Your task to perform on an android device: check google app version Image 0: 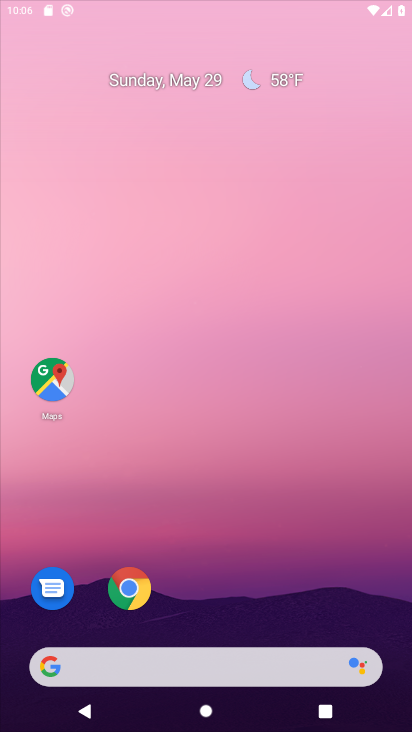
Step 0: click (207, 84)
Your task to perform on an android device: check google app version Image 1: 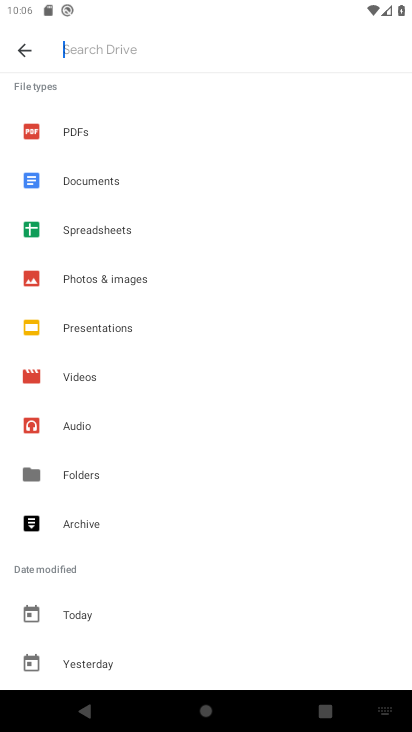
Step 1: click (22, 57)
Your task to perform on an android device: check google app version Image 2: 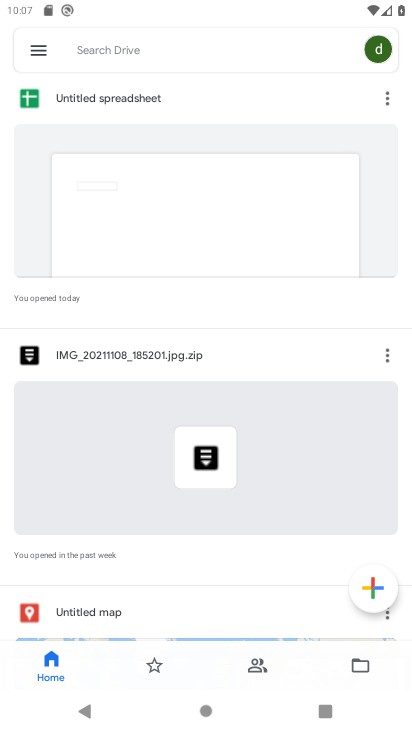
Step 2: press back button
Your task to perform on an android device: check google app version Image 3: 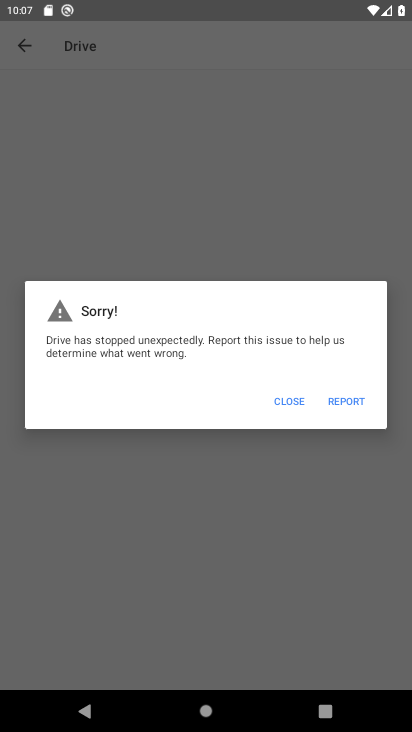
Step 3: click (286, 396)
Your task to perform on an android device: check google app version Image 4: 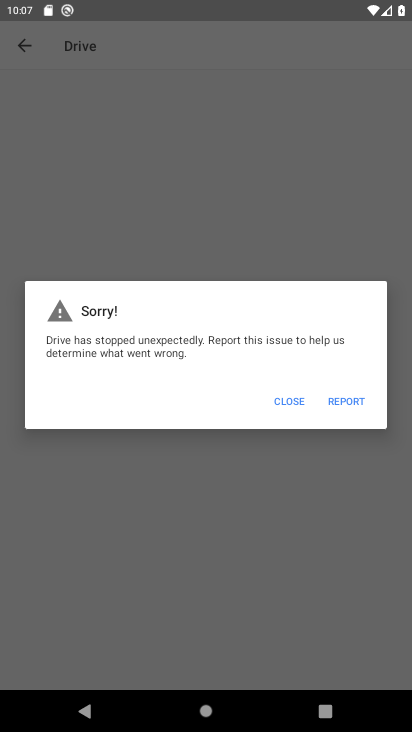
Step 4: click (290, 393)
Your task to perform on an android device: check google app version Image 5: 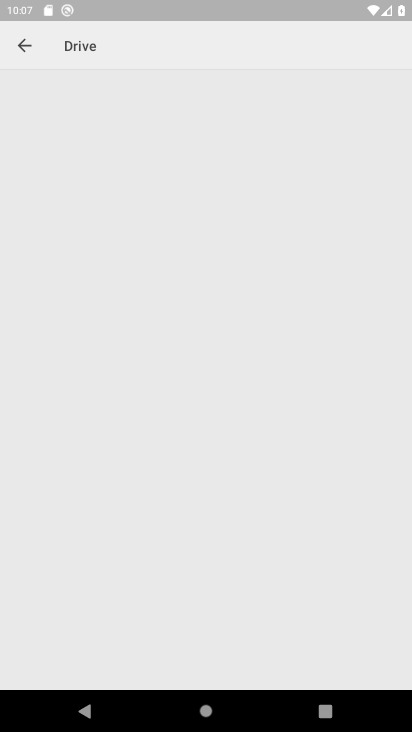
Step 5: click (291, 392)
Your task to perform on an android device: check google app version Image 6: 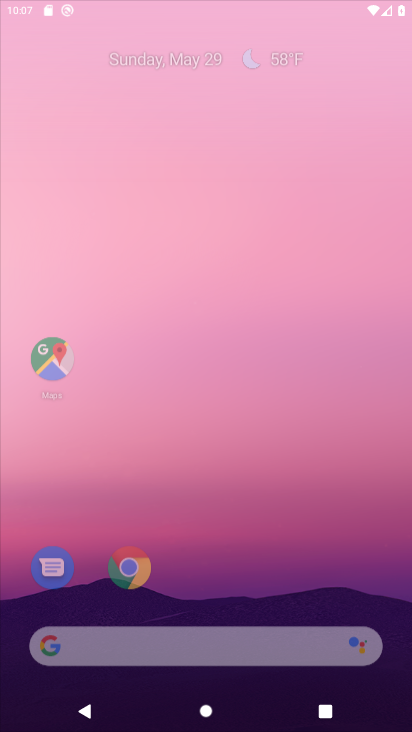
Step 6: click (291, 392)
Your task to perform on an android device: check google app version Image 7: 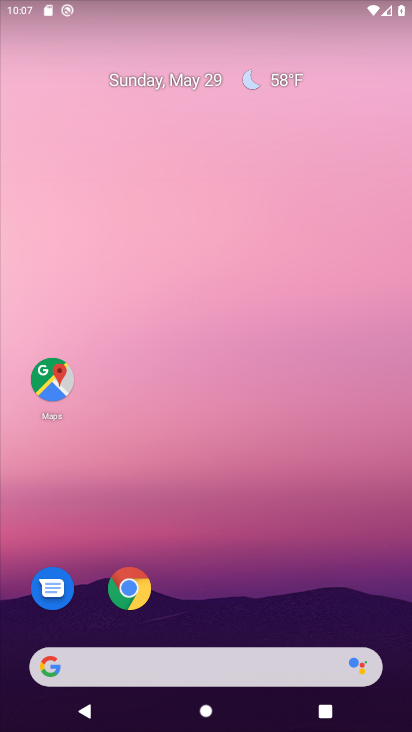
Step 7: drag from (232, 647) to (145, 89)
Your task to perform on an android device: check google app version Image 8: 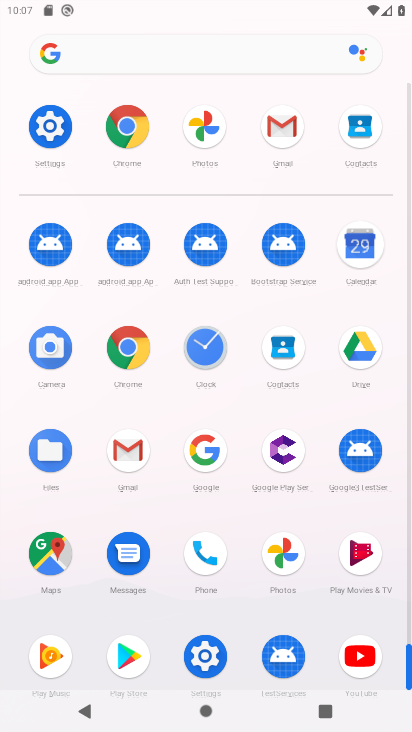
Step 8: click (198, 455)
Your task to perform on an android device: check google app version Image 9: 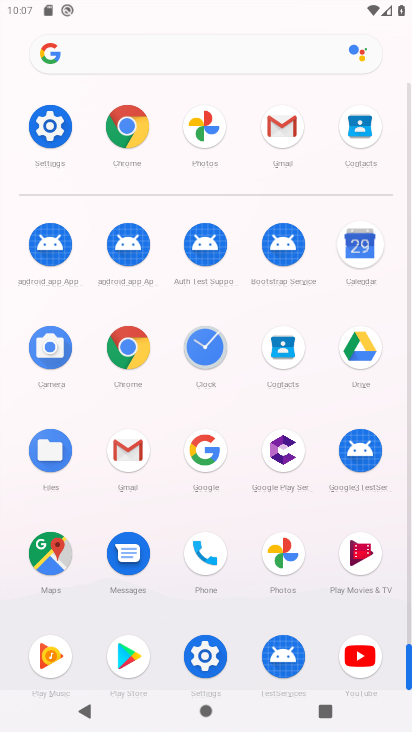
Step 9: click (198, 455)
Your task to perform on an android device: check google app version Image 10: 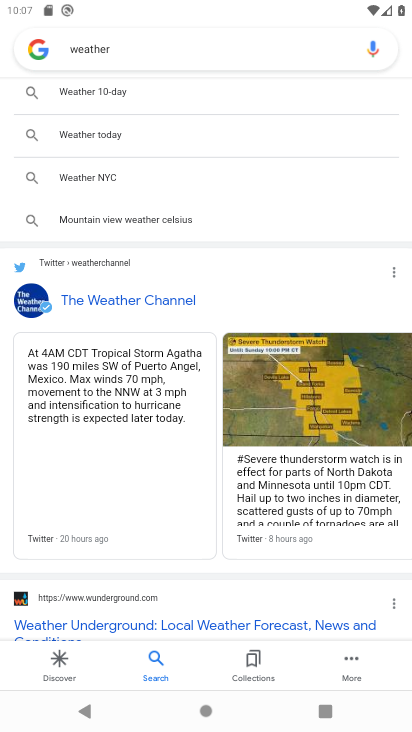
Step 10: click (352, 657)
Your task to perform on an android device: check google app version Image 11: 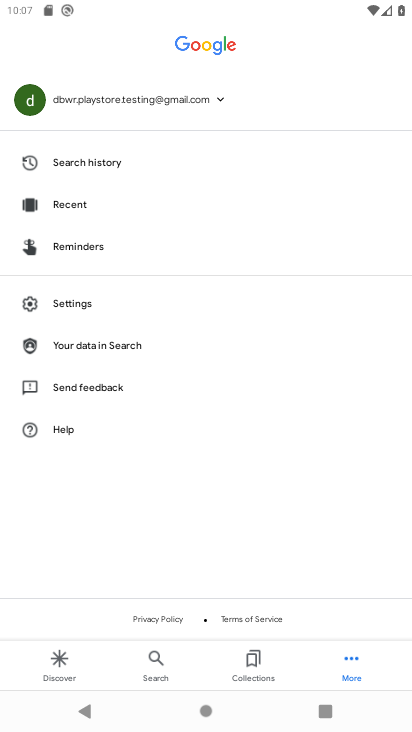
Step 11: click (65, 300)
Your task to perform on an android device: check google app version Image 12: 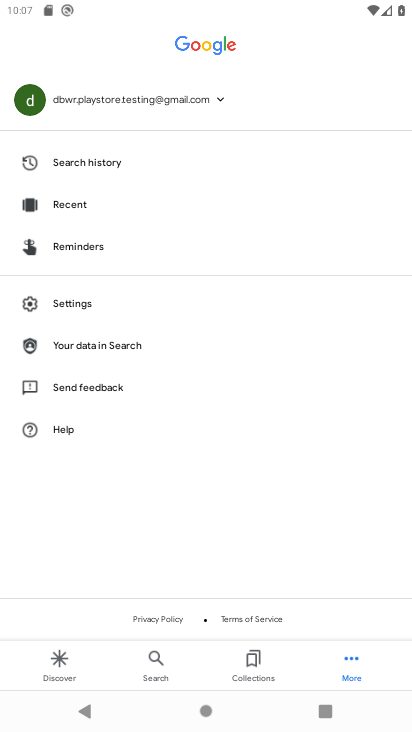
Step 12: click (66, 299)
Your task to perform on an android device: check google app version Image 13: 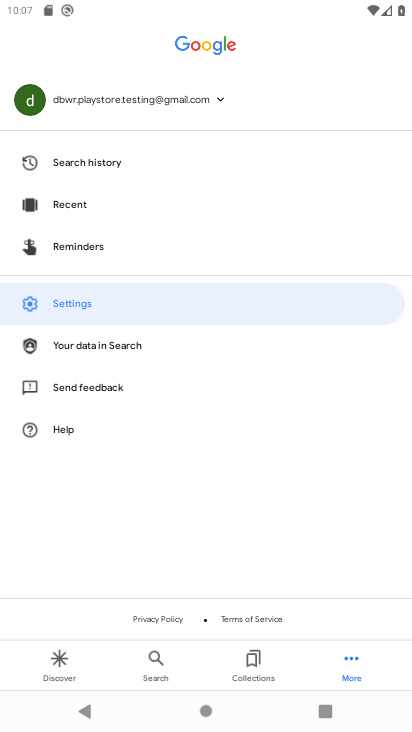
Step 13: click (66, 298)
Your task to perform on an android device: check google app version Image 14: 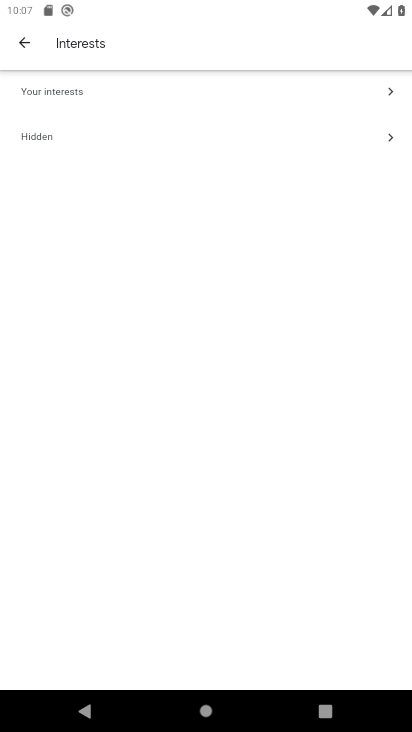
Step 14: click (5, 46)
Your task to perform on an android device: check google app version Image 15: 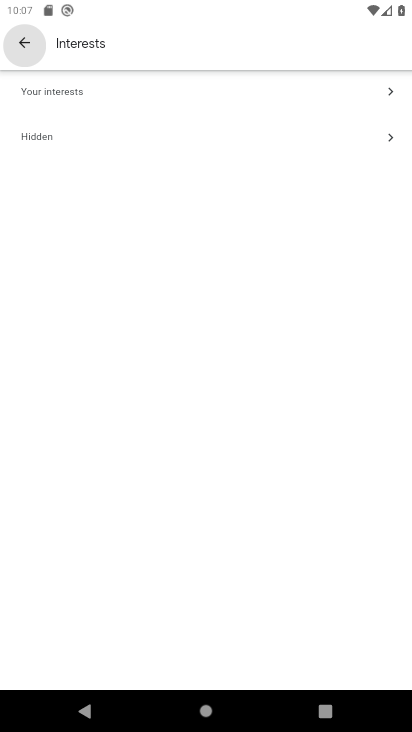
Step 15: click (14, 41)
Your task to perform on an android device: check google app version Image 16: 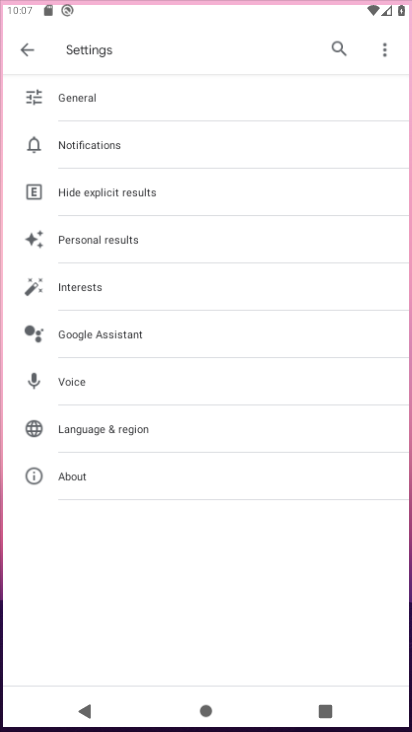
Step 16: click (22, 39)
Your task to perform on an android device: check google app version Image 17: 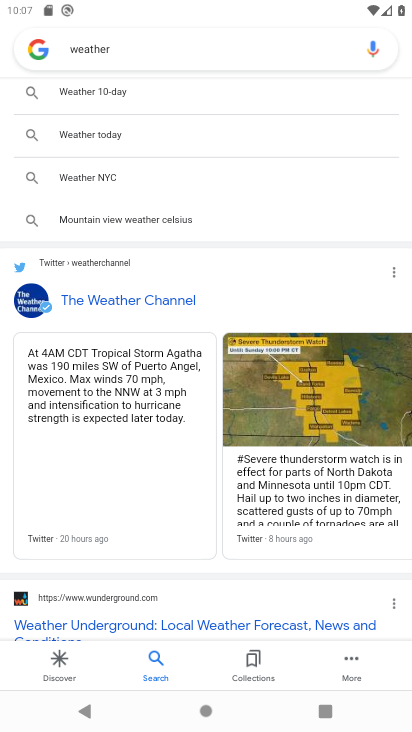
Step 17: click (357, 657)
Your task to perform on an android device: check google app version Image 18: 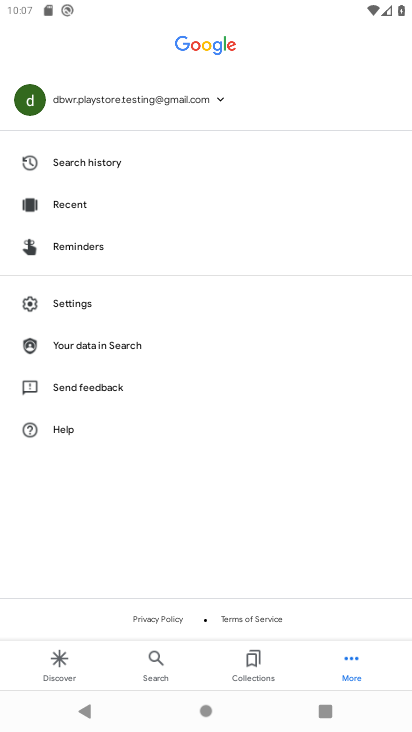
Step 18: click (61, 304)
Your task to perform on an android device: check google app version Image 19: 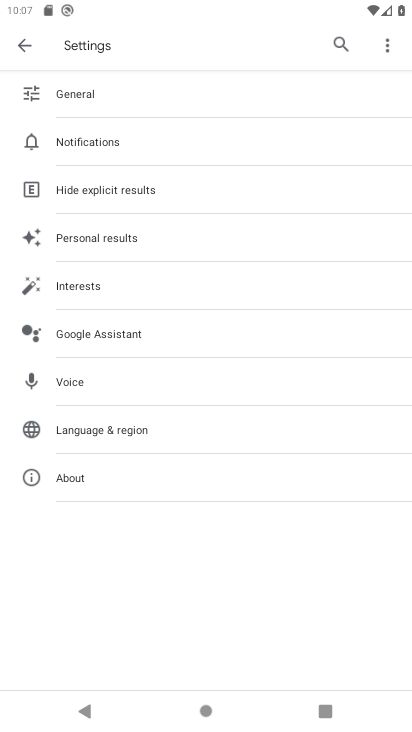
Step 19: click (80, 475)
Your task to perform on an android device: check google app version Image 20: 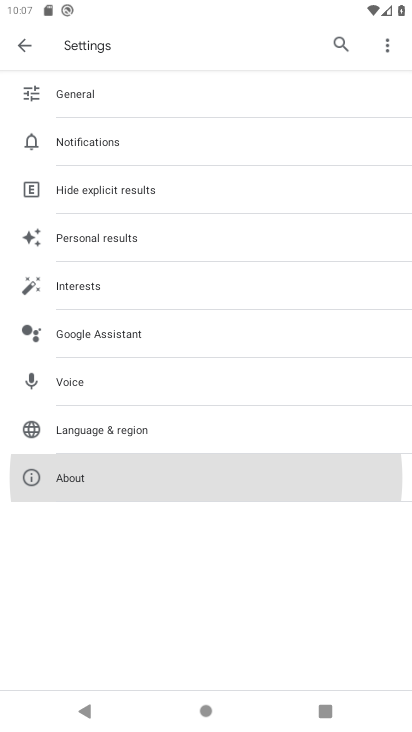
Step 20: click (80, 475)
Your task to perform on an android device: check google app version Image 21: 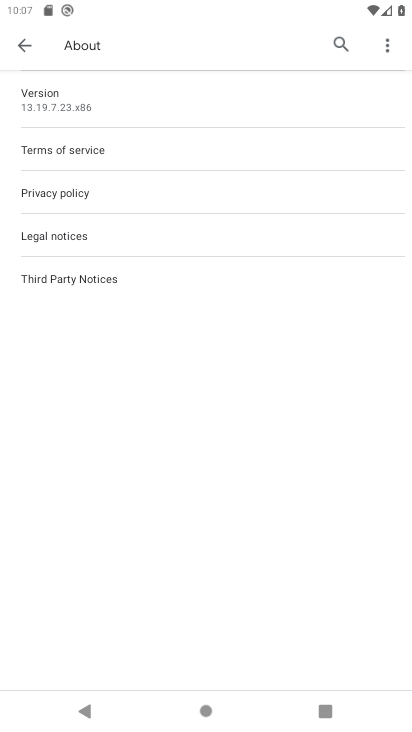
Step 21: click (80, 475)
Your task to perform on an android device: check google app version Image 22: 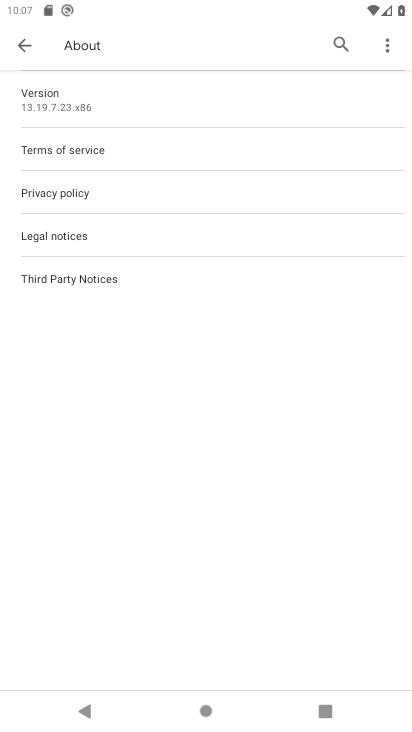
Step 22: click (80, 481)
Your task to perform on an android device: check google app version Image 23: 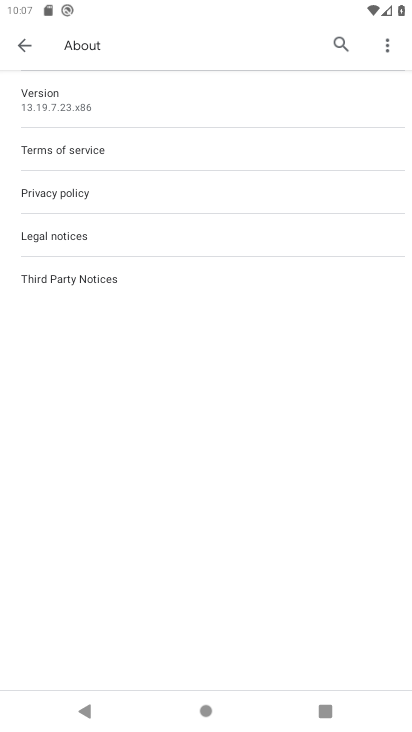
Step 23: click (80, 481)
Your task to perform on an android device: check google app version Image 24: 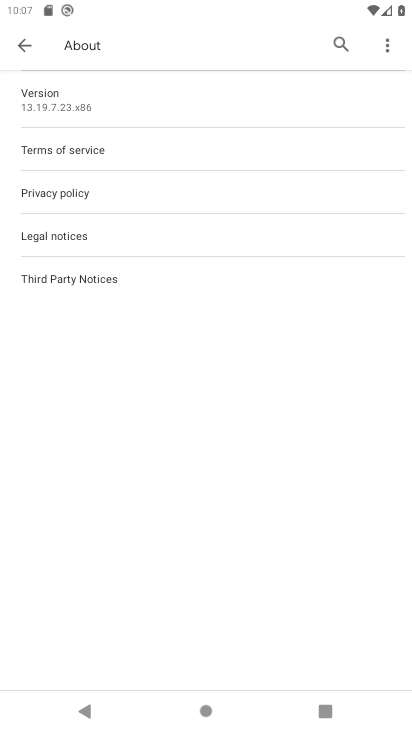
Step 24: click (55, 97)
Your task to perform on an android device: check google app version Image 25: 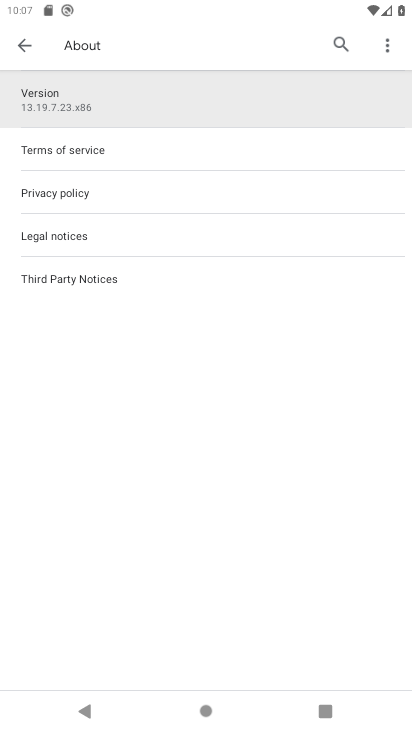
Step 25: click (58, 100)
Your task to perform on an android device: check google app version Image 26: 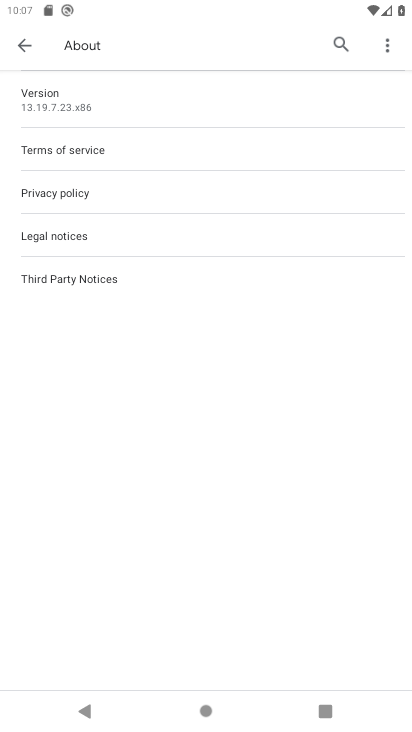
Step 26: click (59, 100)
Your task to perform on an android device: check google app version Image 27: 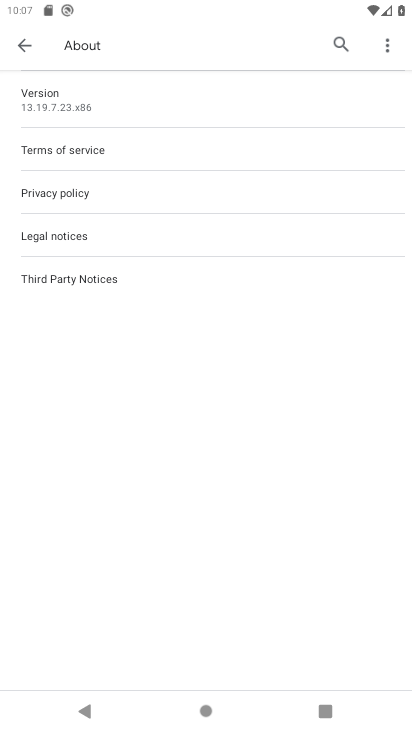
Step 27: task complete